Your task to perform on an android device: snooze an email in the gmail app Image 0: 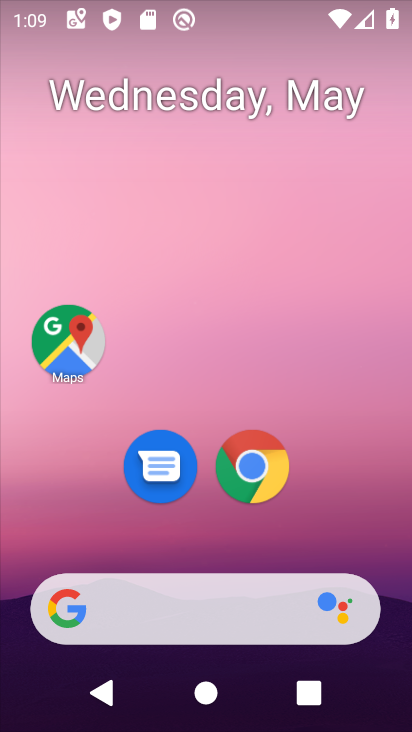
Step 0: drag from (225, 535) to (291, 35)
Your task to perform on an android device: snooze an email in the gmail app Image 1: 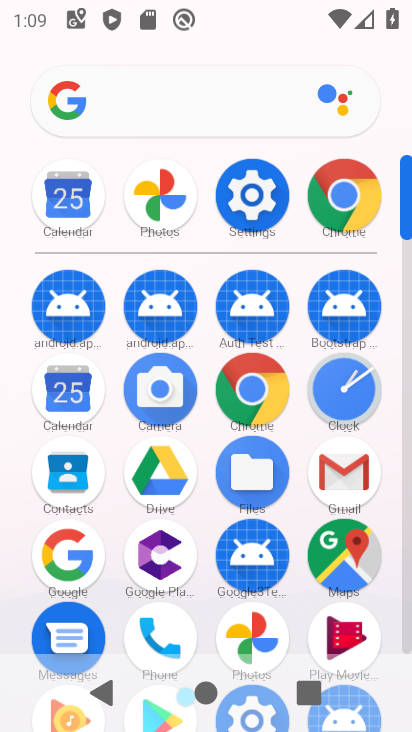
Step 1: click (343, 470)
Your task to perform on an android device: snooze an email in the gmail app Image 2: 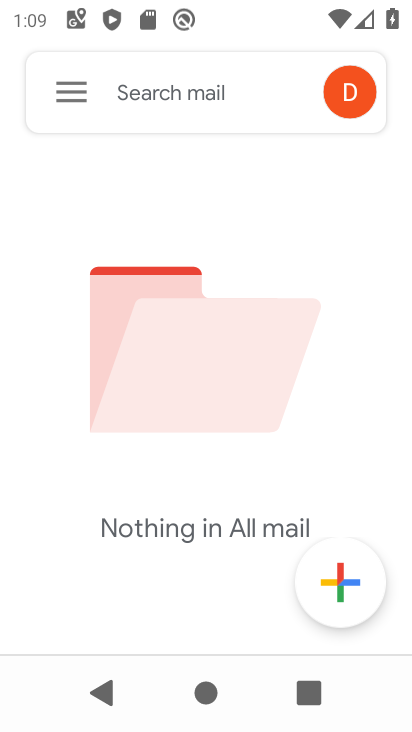
Step 2: task complete